Your task to perform on an android device: Open calendar and show me the third week of next month Image 0: 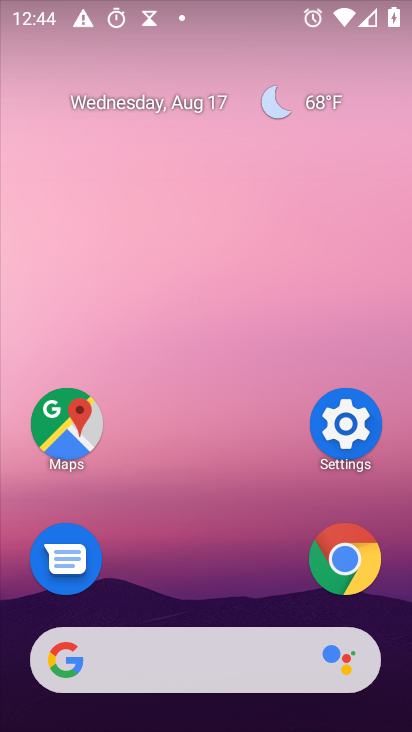
Step 0: press home button
Your task to perform on an android device: Open calendar and show me the third week of next month Image 1: 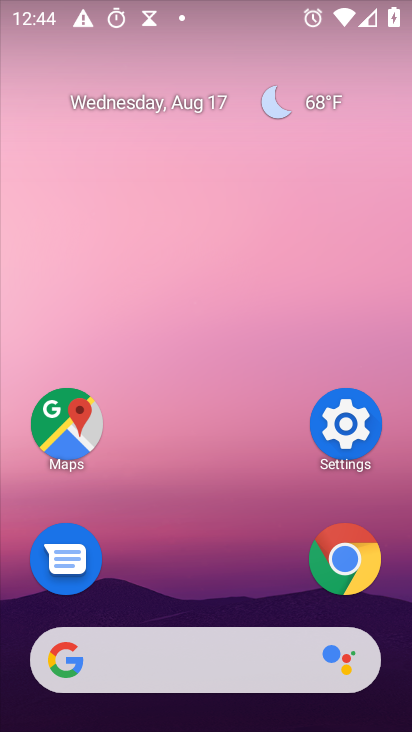
Step 1: drag from (210, 591) to (168, 136)
Your task to perform on an android device: Open calendar and show me the third week of next month Image 2: 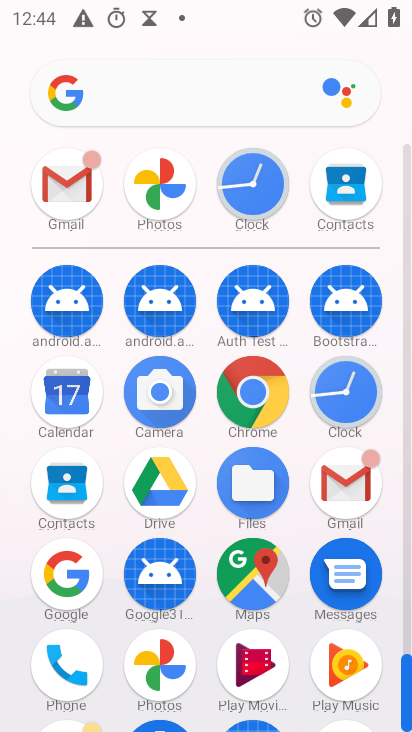
Step 2: click (67, 400)
Your task to perform on an android device: Open calendar and show me the third week of next month Image 3: 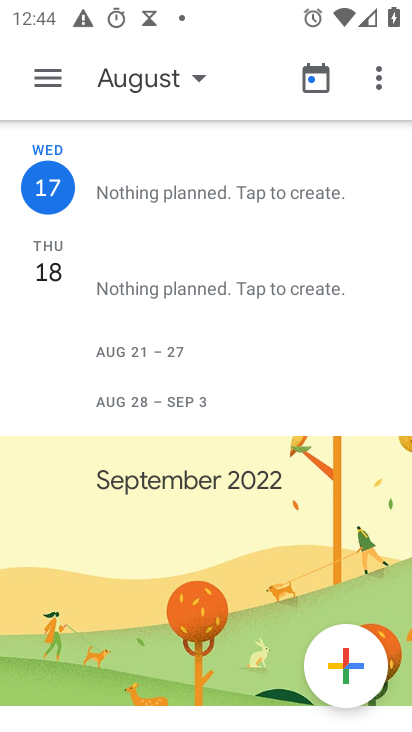
Step 3: click (136, 69)
Your task to perform on an android device: Open calendar and show me the third week of next month Image 4: 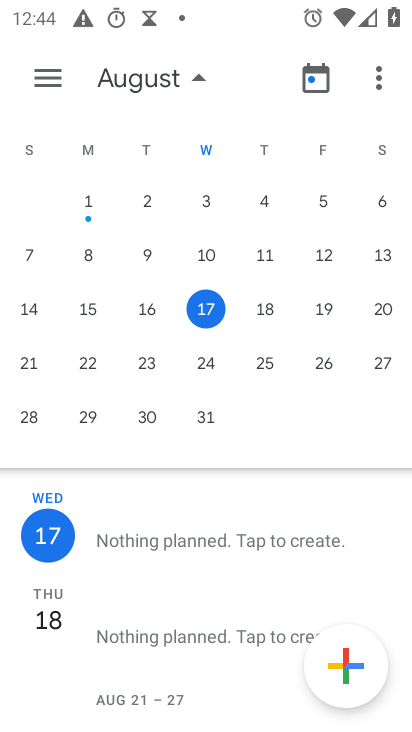
Step 4: drag from (369, 283) to (9, 319)
Your task to perform on an android device: Open calendar and show me the third week of next month Image 5: 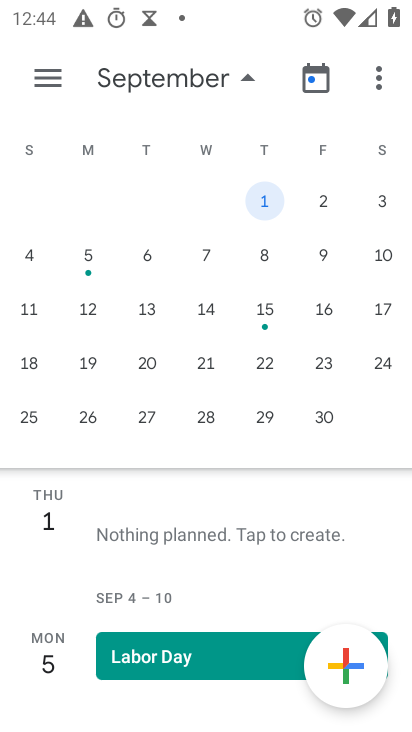
Step 5: click (30, 307)
Your task to perform on an android device: Open calendar and show me the third week of next month Image 6: 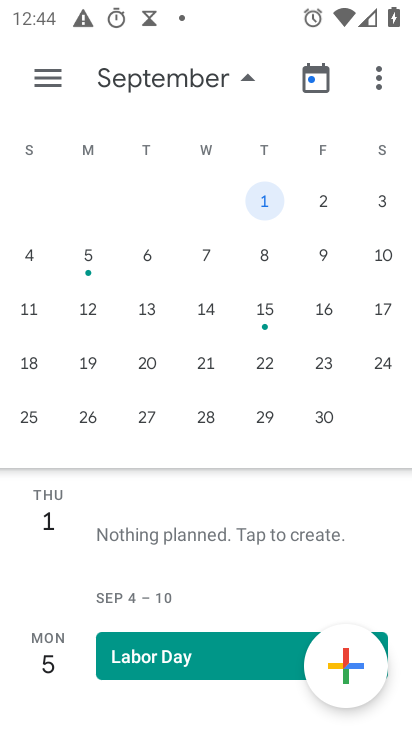
Step 6: click (41, 305)
Your task to perform on an android device: Open calendar and show me the third week of next month Image 7: 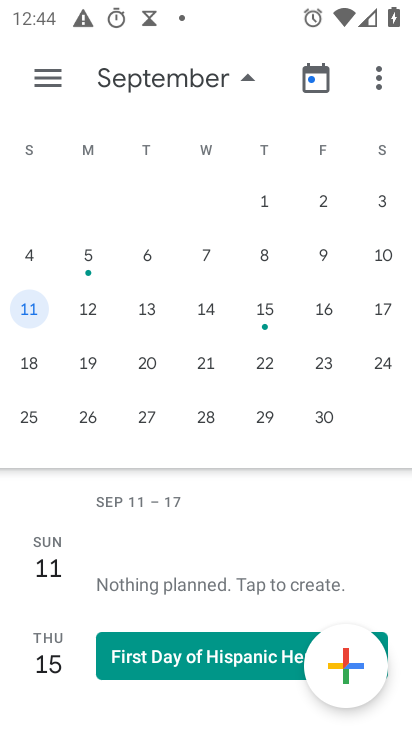
Step 7: click (59, 74)
Your task to perform on an android device: Open calendar and show me the third week of next month Image 8: 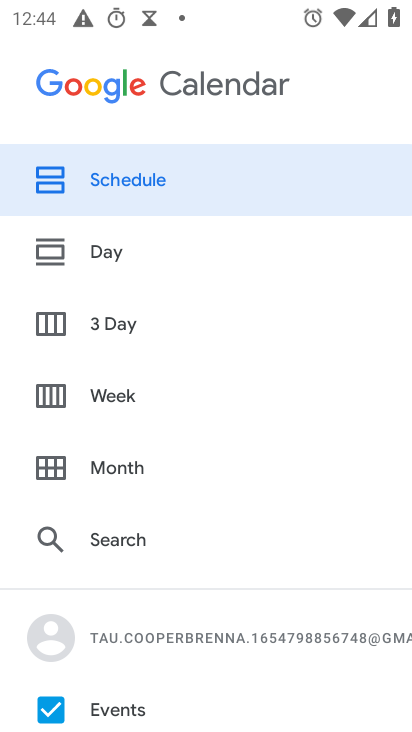
Step 8: click (108, 391)
Your task to perform on an android device: Open calendar and show me the third week of next month Image 9: 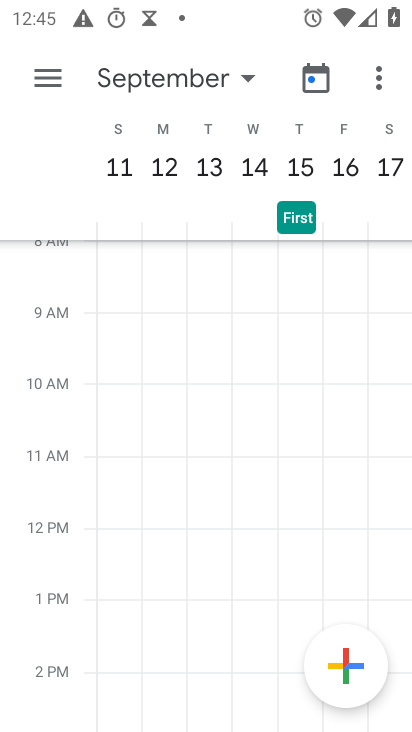
Step 9: task complete